Your task to perform on an android device: turn pop-ups on in chrome Image 0: 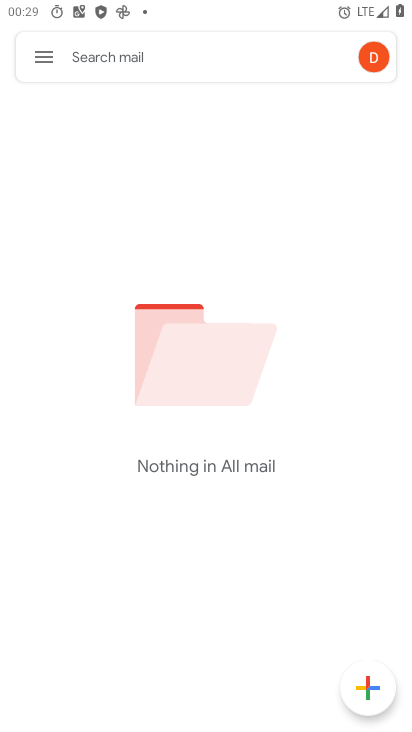
Step 0: press home button
Your task to perform on an android device: turn pop-ups on in chrome Image 1: 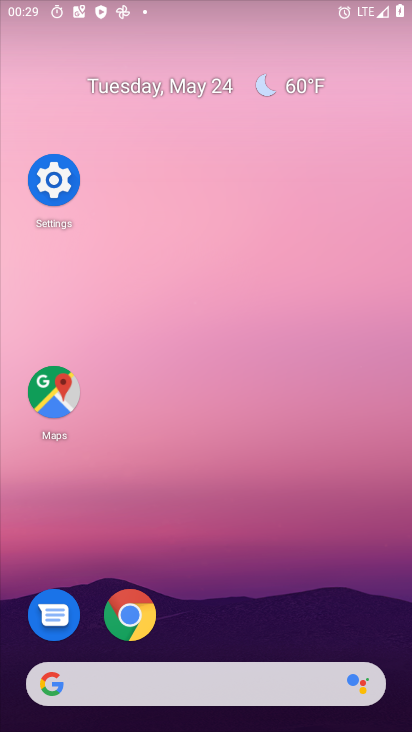
Step 1: drag from (251, 154) to (251, 109)
Your task to perform on an android device: turn pop-ups on in chrome Image 2: 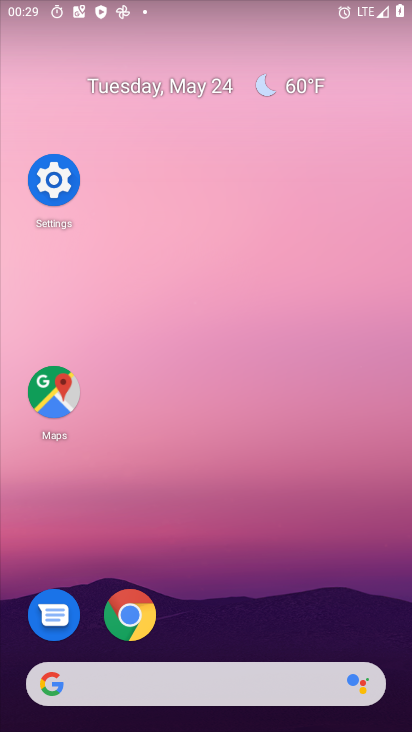
Step 2: click (134, 613)
Your task to perform on an android device: turn pop-ups on in chrome Image 3: 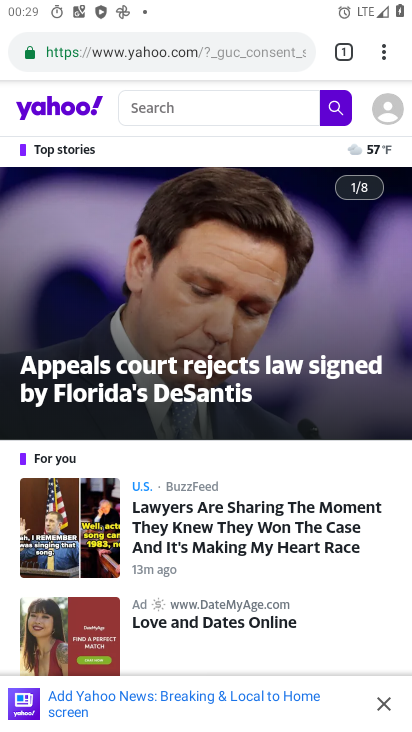
Step 3: click (379, 57)
Your task to perform on an android device: turn pop-ups on in chrome Image 4: 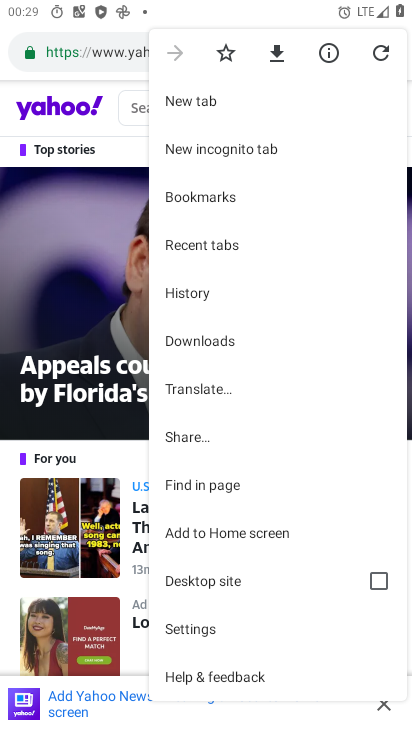
Step 4: click (218, 633)
Your task to perform on an android device: turn pop-ups on in chrome Image 5: 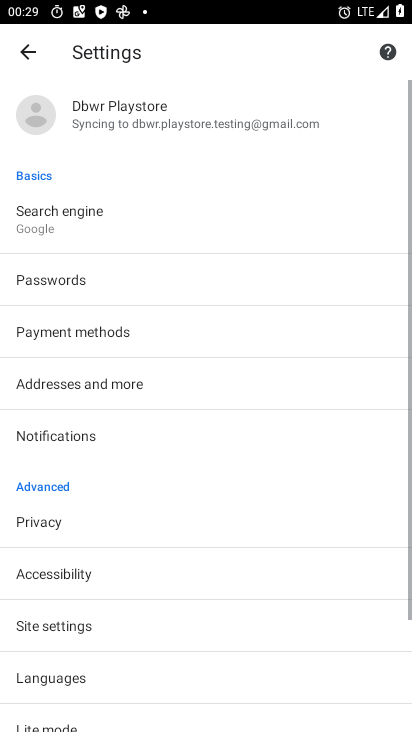
Step 5: click (58, 629)
Your task to perform on an android device: turn pop-ups on in chrome Image 6: 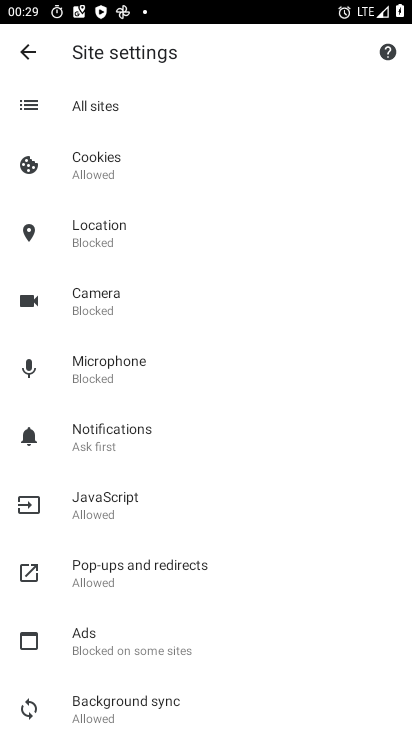
Step 6: click (104, 573)
Your task to perform on an android device: turn pop-ups on in chrome Image 7: 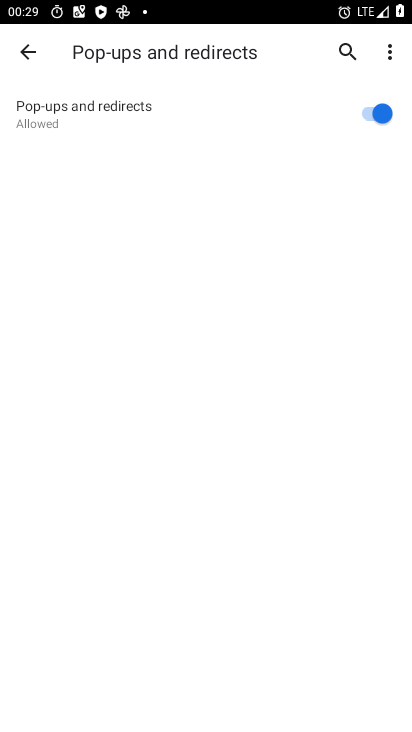
Step 7: task complete